Your task to perform on an android device: turn off improve location accuracy Image 0: 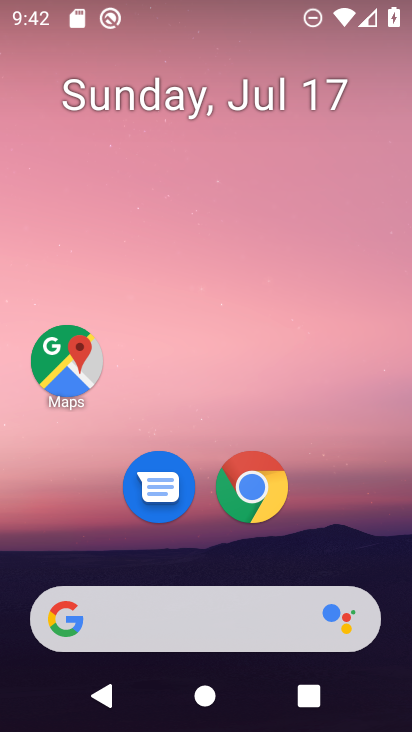
Step 0: drag from (336, 487) to (313, 23)
Your task to perform on an android device: turn off improve location accuracy Image 1: 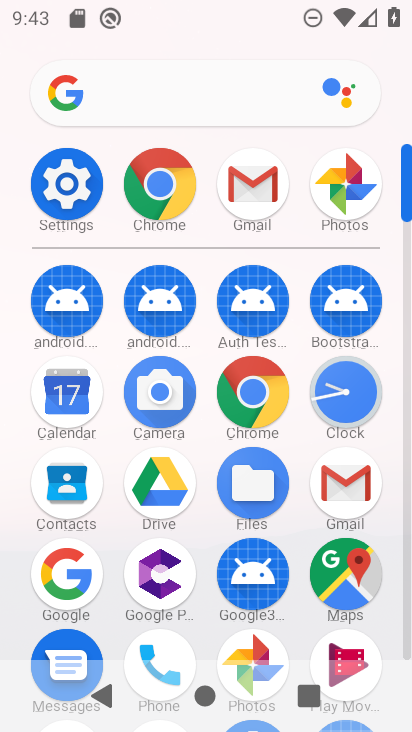
Step 1: click (59, 194)
Your task to perform on an android device: turn off improve location accuracy Image 2: 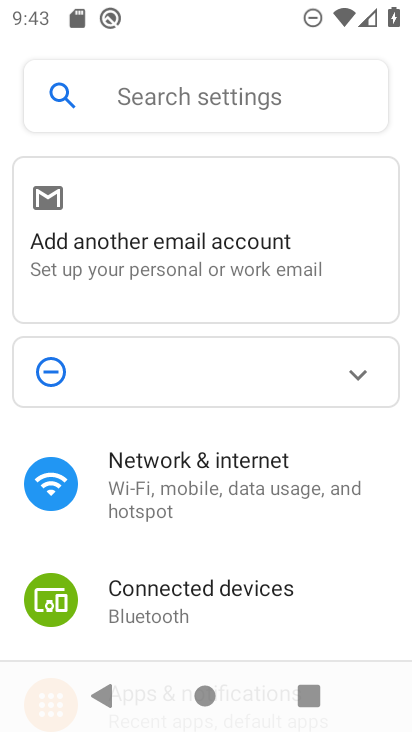
Step 2: drag from (320, 612) to (207, 147)
Your task to perform on an android device: turn off improve location accuracy Image 3: 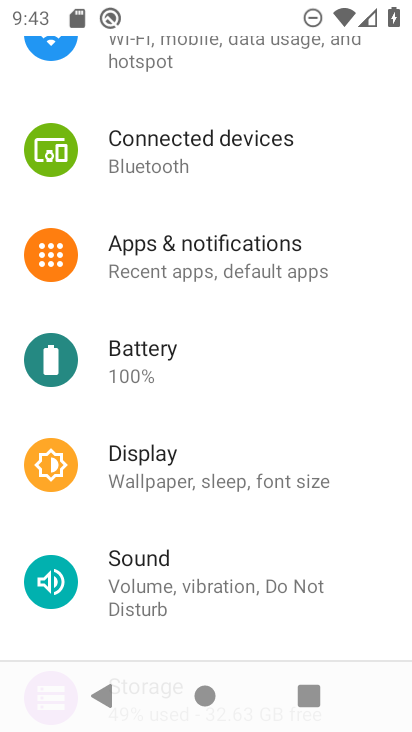
Step 3: drag from (337, 546) to (355, 171)
Your task to perform on an android device: turn off improve location accuracy Image 4: 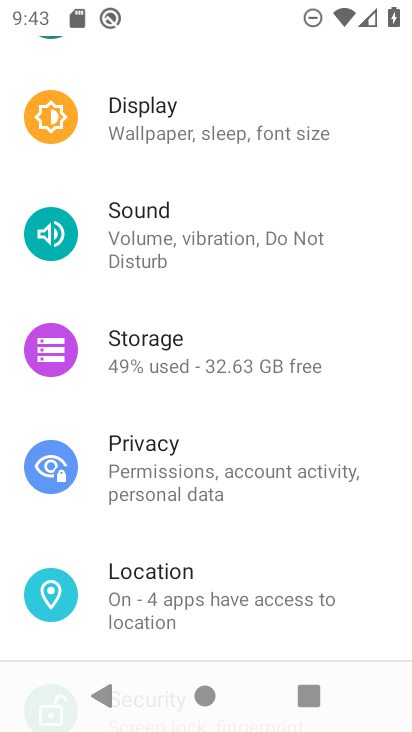
Step 4: click (138, 572)
Your task to perform on an android device: turn off improve location accuracy Image 5: 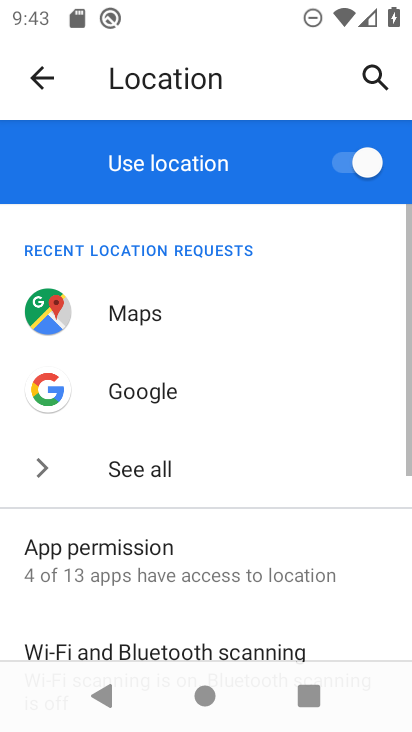
Step 5: drag from (319, 598) to (369, 279)
Your task to perform on an android device: turn off improve location accuracy Image 6: 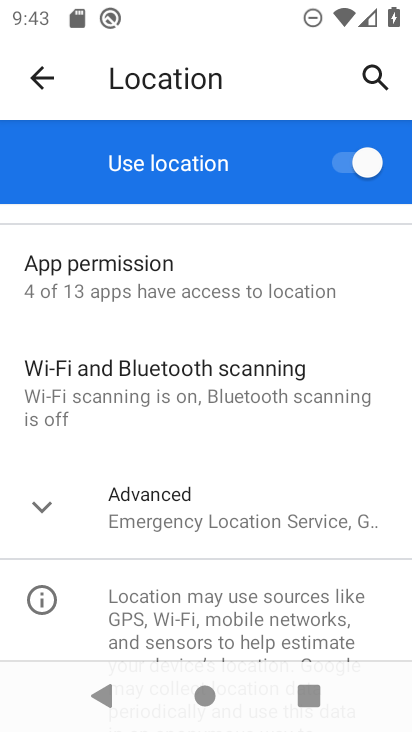
Step 6: click (196, 539)
Your task to perform on an android device: turn off improve location accuracy Image 7: 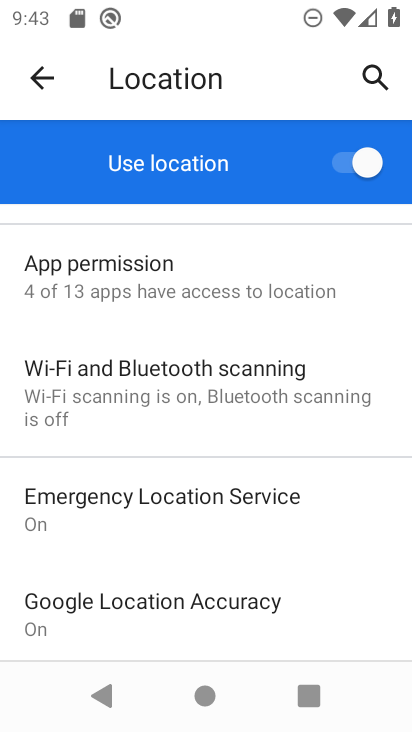
Step 7: click (157, 605)
Your task to perform on an android device: turn off improve location accuracy Image 8: 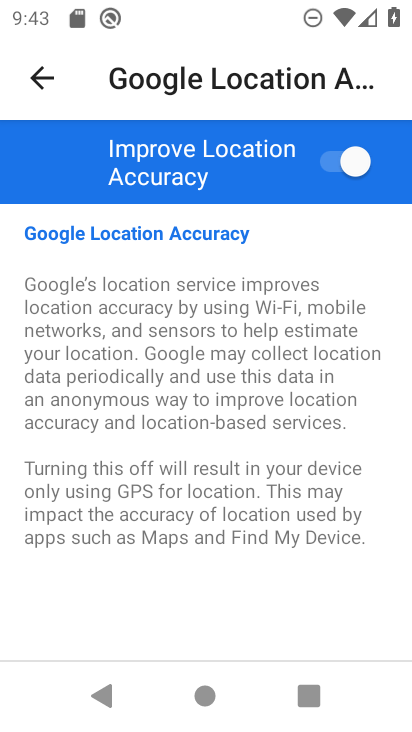
Step 8: click (362, 156)
Your task to perform on an android device: turn off improve location accuracy Image 9: 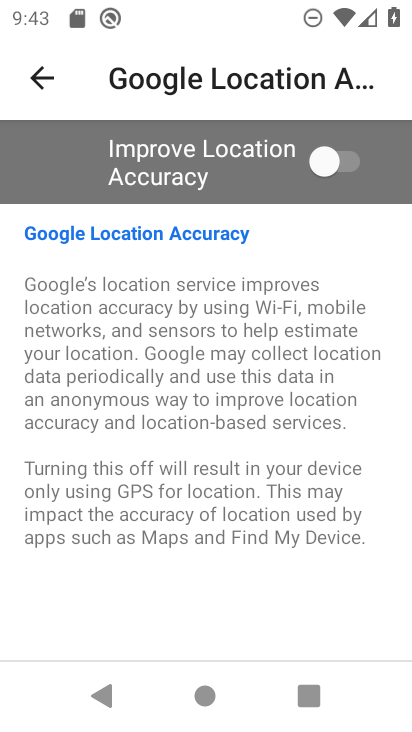
Step 9: task complete